Your task to perform on an android device: What's on my calendar tomorrow? Image 0: 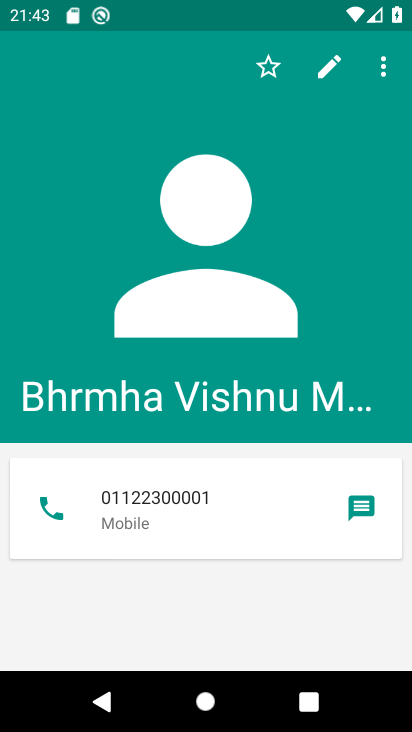
Step 0: press home button
Your task to perform on an android device: What's on my calendar tomorrow? Image 1: 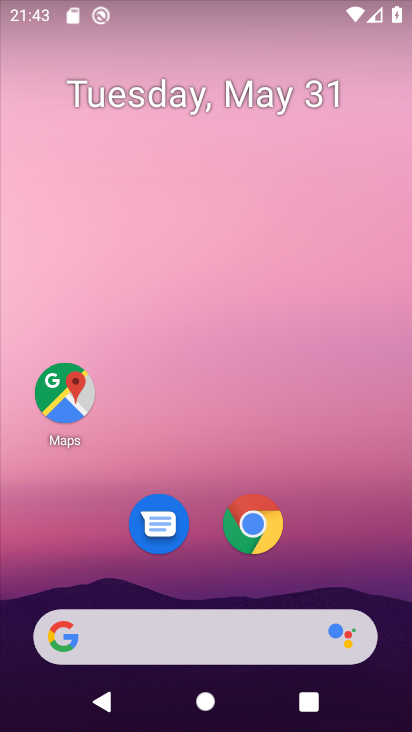
Step 1: drag from (318, 525) to (305, 21)
Your task to perform on an android device: What's on my calendar tomorrow? Image 2: 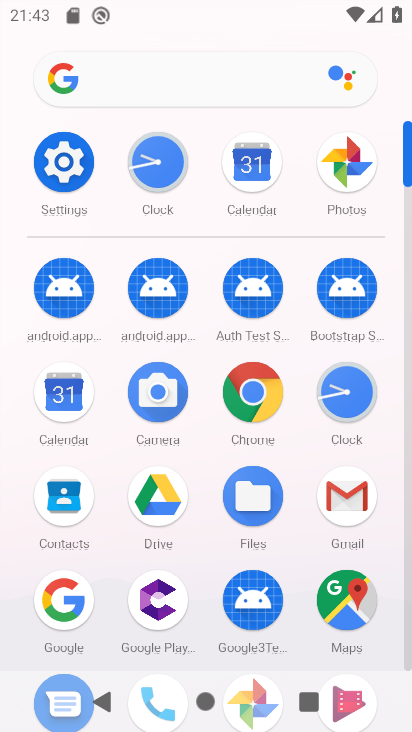
Step 2: click (240, 166)
Your task to perform on an android device: What's on my calendar tomorrow? Image 3: 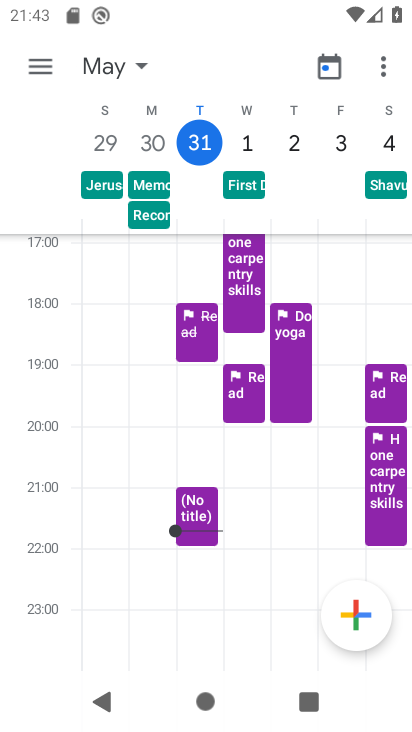
Step 3: click (202, 139)
Your task to perform on an android device: What's on my calendar tomorrow? Image 4: 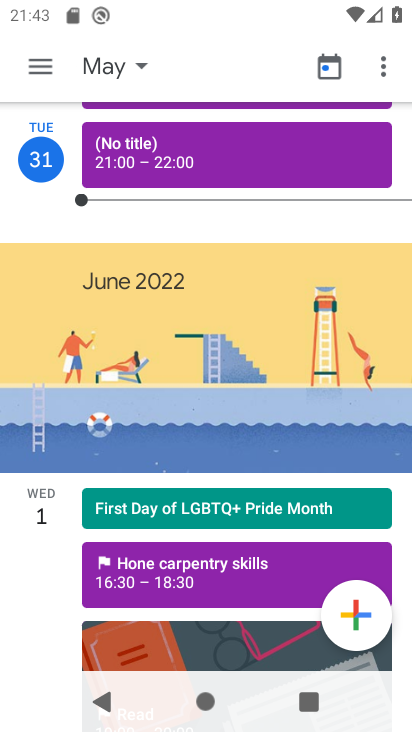
Step 4: task complete